Your task to perform on an android device: Play the last video I watched on Youtube Image 0: 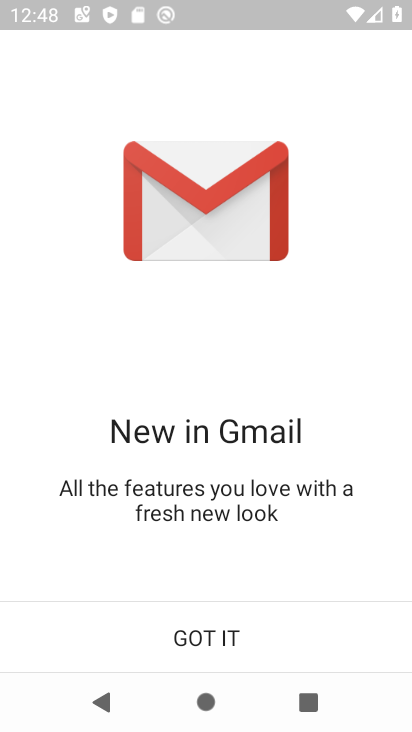
Step 0: click (181, 645)
Your task to perform on an android device: Play the last video I watched on Youtube Image 1: 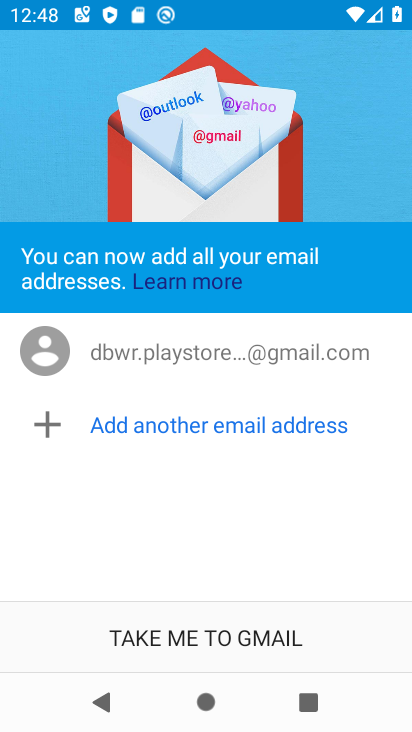
Step 1: press home button
Your task to perform on an android device: Play the last video I watched on Youtube Image 2: 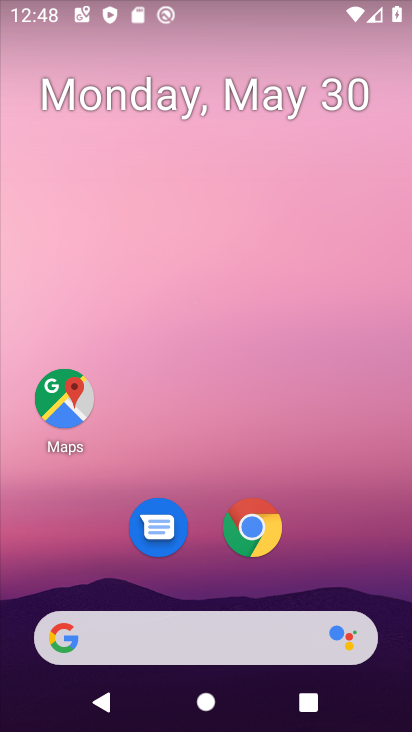
Step 2: drag from (214, 584) to (204, 152)
Your task to perform on an android device: Play the last video I watched on Youtube Image 3: 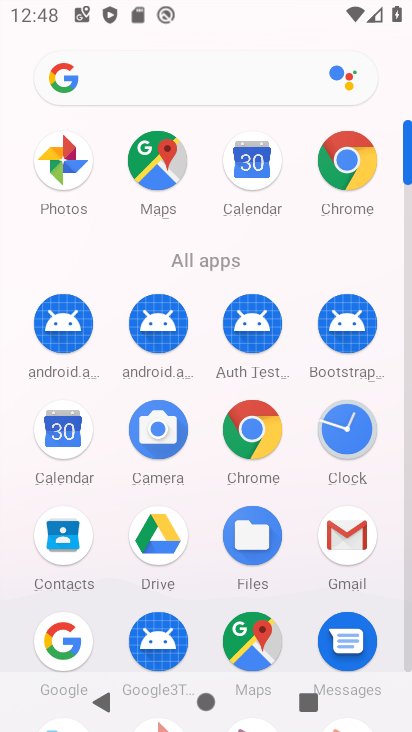
Step 3: drag from (203, 598) to (181, 148)
Your task to perform on an android device: Play the last video I watched on Youtube Image 4: 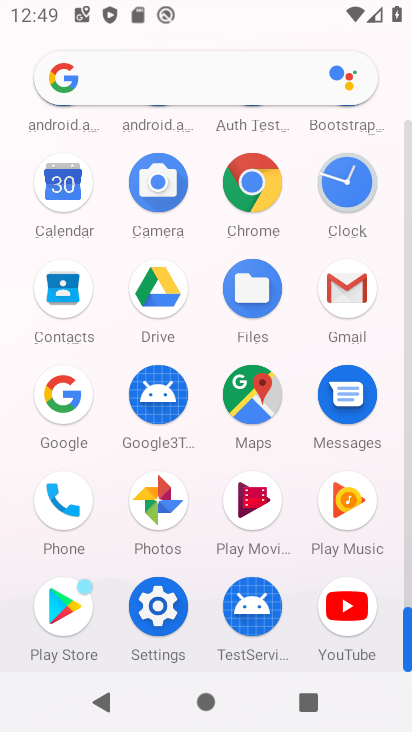
Step 4: click (331, 590)
Your task to perform on an android device: Play the last video I watched on Youtube Image 5: 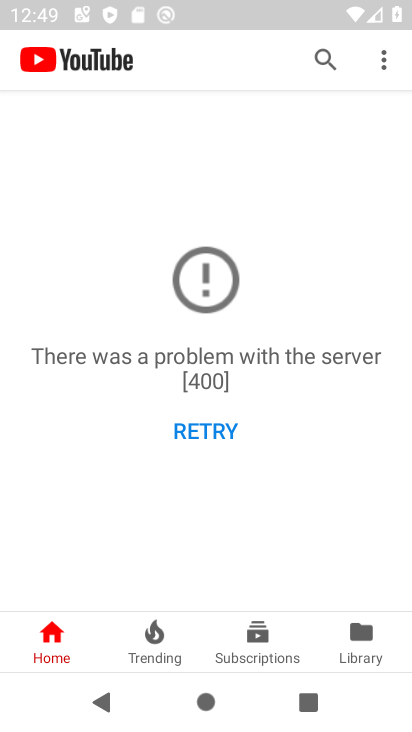
Step 5: press home button
Your task to perform on an android device: Play the last video I watched on Youtube Image 6: 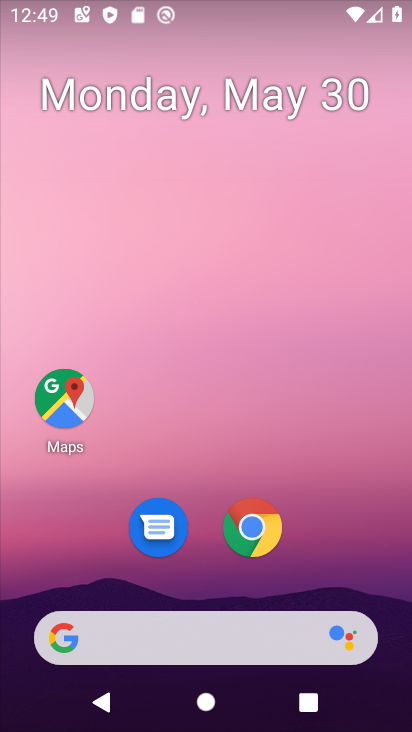
Step 6: drag from (212, 546) to (181, 145)
Your task to perform on an android device: Play the last video I watched on Youtube Image 7: 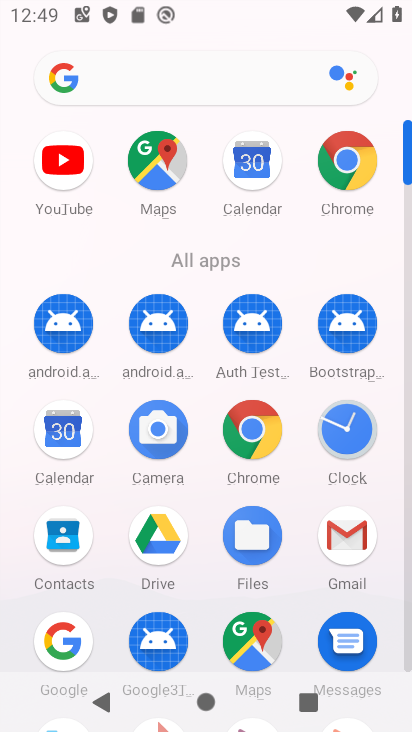
Step 7: click (43, 164)
Your task to perform on an android device: Play the last video I watched on Youtube Image 8: 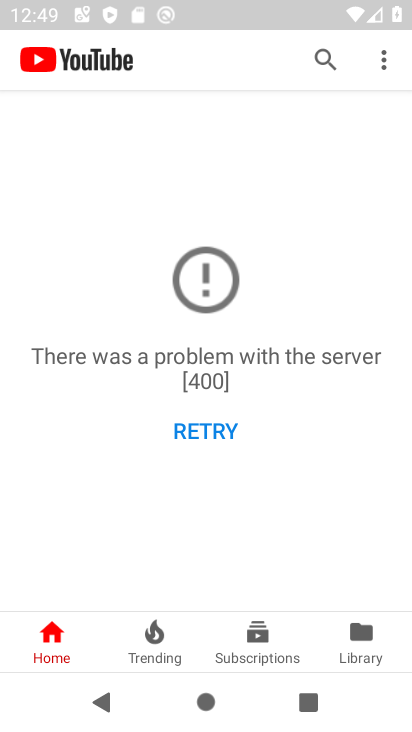
Step 8: click (217, 438)
Your task to perform on an android device: Play the last video I watched on Youtube Image 9: 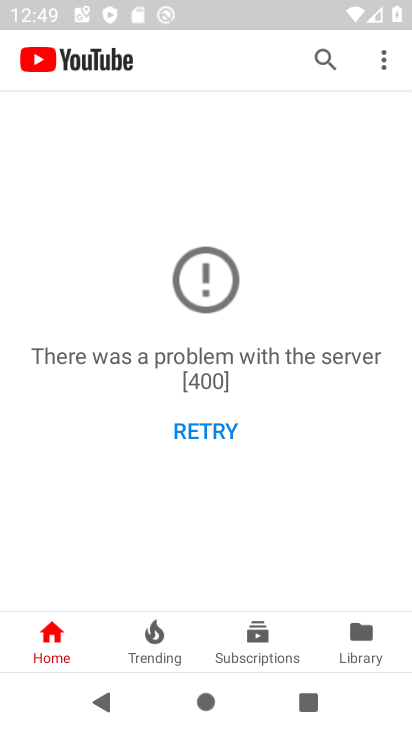
Step 9: click (208, 414)
Your task to perform on an android device: Play the last video I watched on Youtube Image 10: 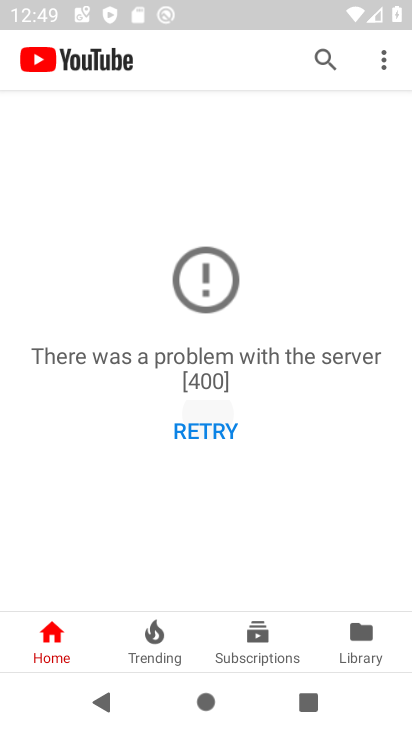
Step 10: click (196, 443)
Your task to perform on an android device: Play the last video I watched on Youtube Image 11: 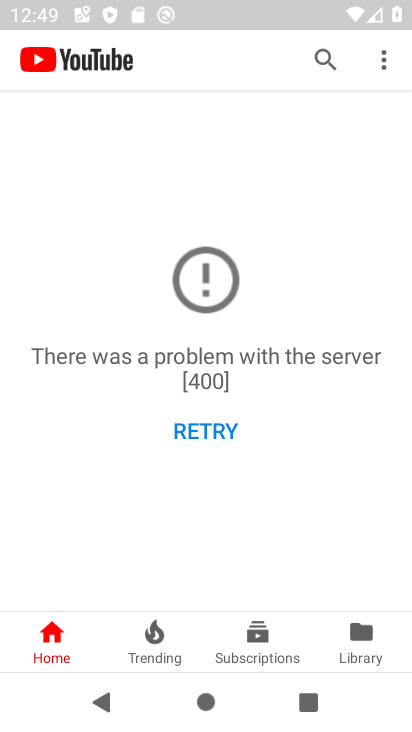
Step 11: click (193, 442)
Your task to perform on an android device: Play the last video I watched on Youtube Image 12: 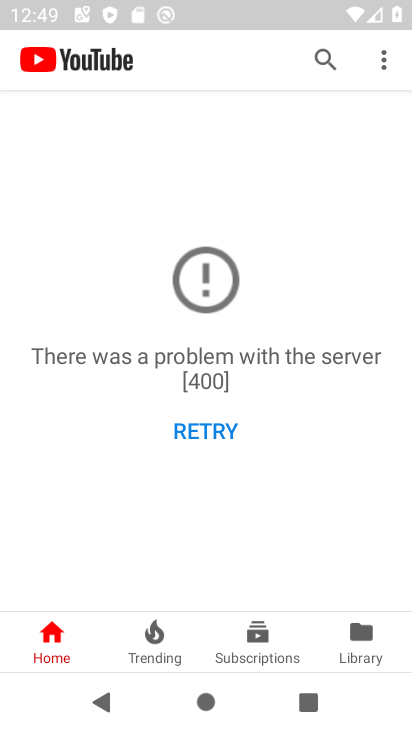
Step 12: click (193, 439)
Your task to perform on an android device: Play the last video I watched on Youtube Image 13: 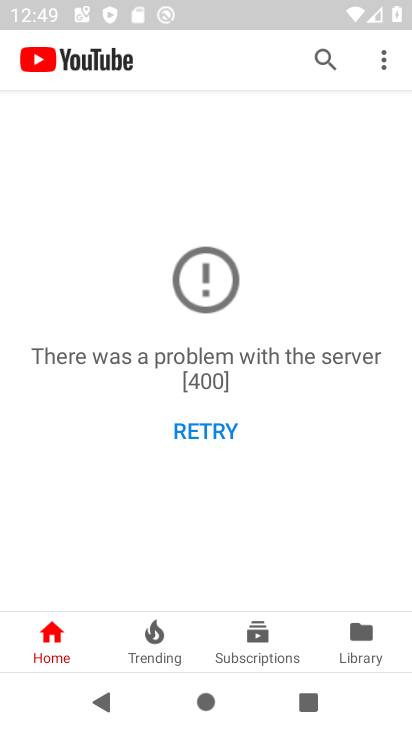
Step 13: click (193, 439)
Your task to perform on an android device: Play the last video I watched on Youtube Image 14: 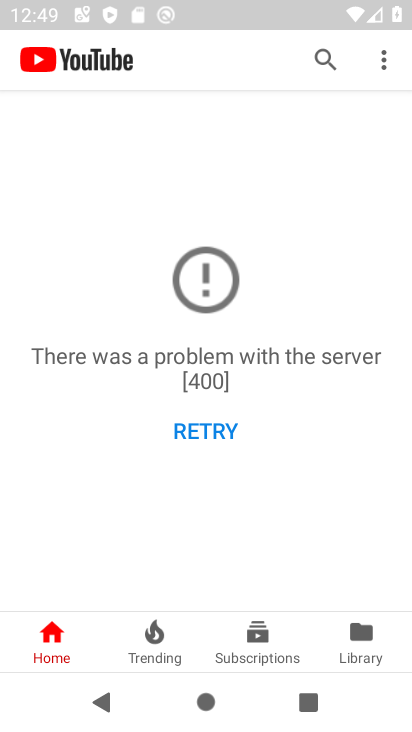
Step 14: click (367, 628)
Your task to perform on an android device: Play the last video I watched on Youtube Image 15: 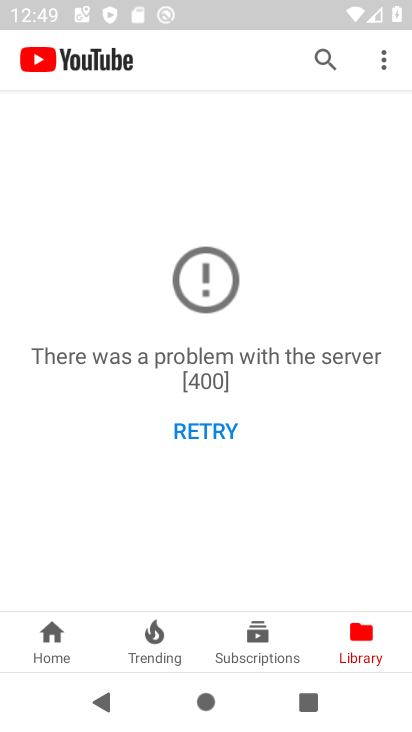
Step 15: click (217, 435)
Your task to perform on an android device: Play the last video I watched on Youtube Image 16: 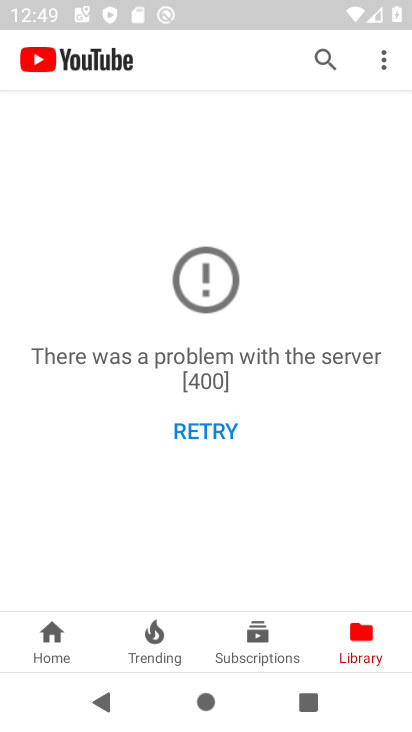
Step 16: task complete